Your task to perform on an android device: Open CNN.com Image 0: 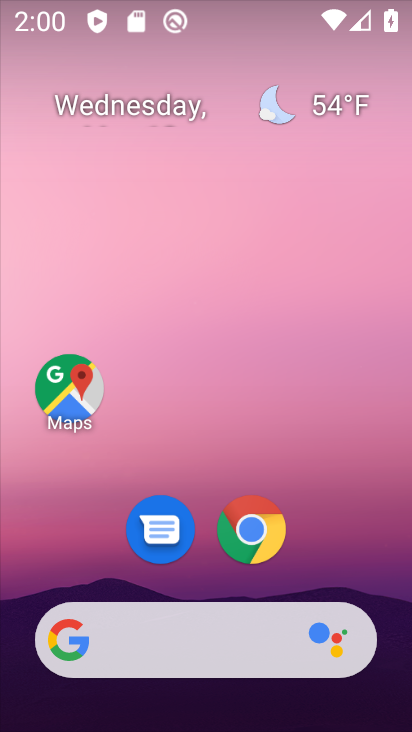
Step 0: click (266, 546)
Your task to perform on an android device: Open CNN.com Image 1: 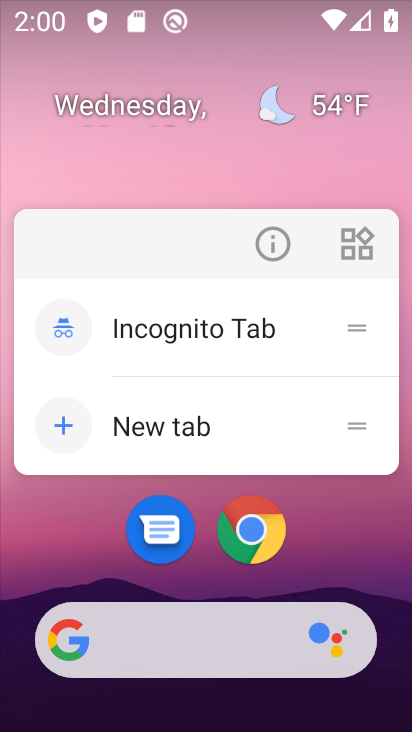
Step 1: click (261, 530)
Your task to perform on an android device: Open CNN.com Image 2: 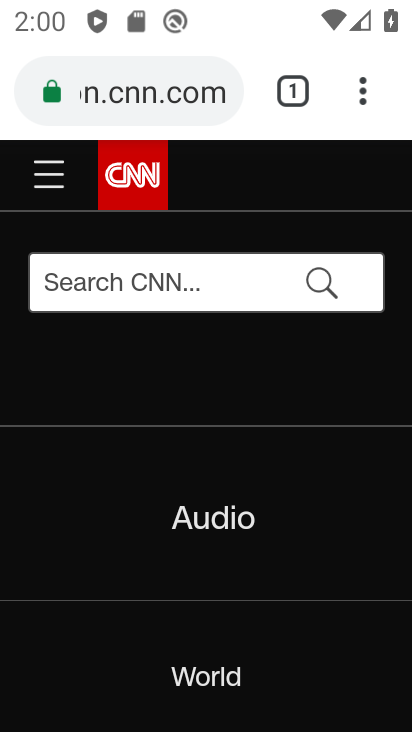
Step 2: task complete